Your task to perform on an android device: Search for the best rated 2021 Samsung Galaxy S21 Ultra on AliExpress Image 0: 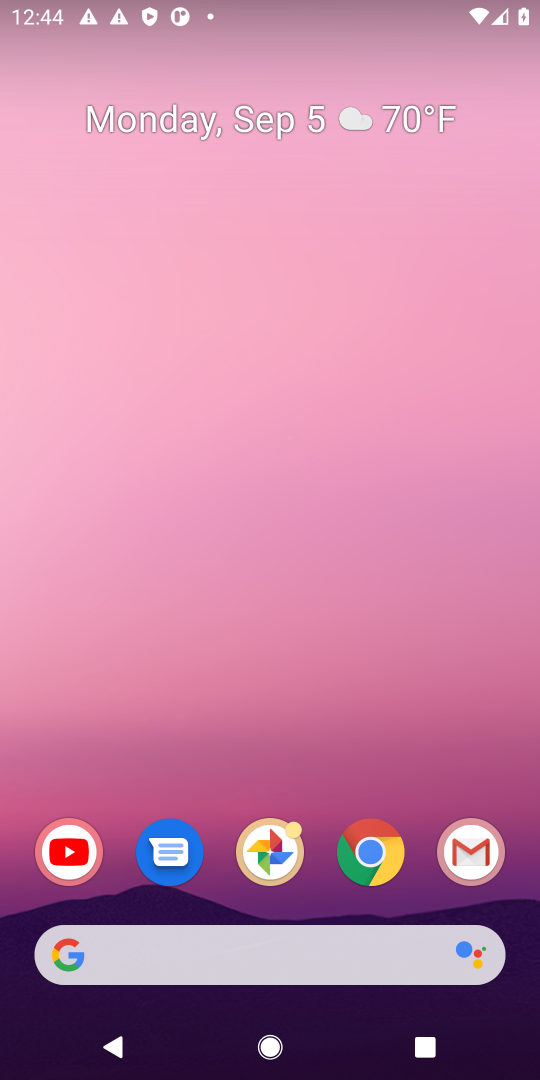
Step 0: click (371, 849)
Your task to perform on an android device: Search for the best rated 2021 Samsung Galaxy S21 Ultra on AliExpress Image 1: 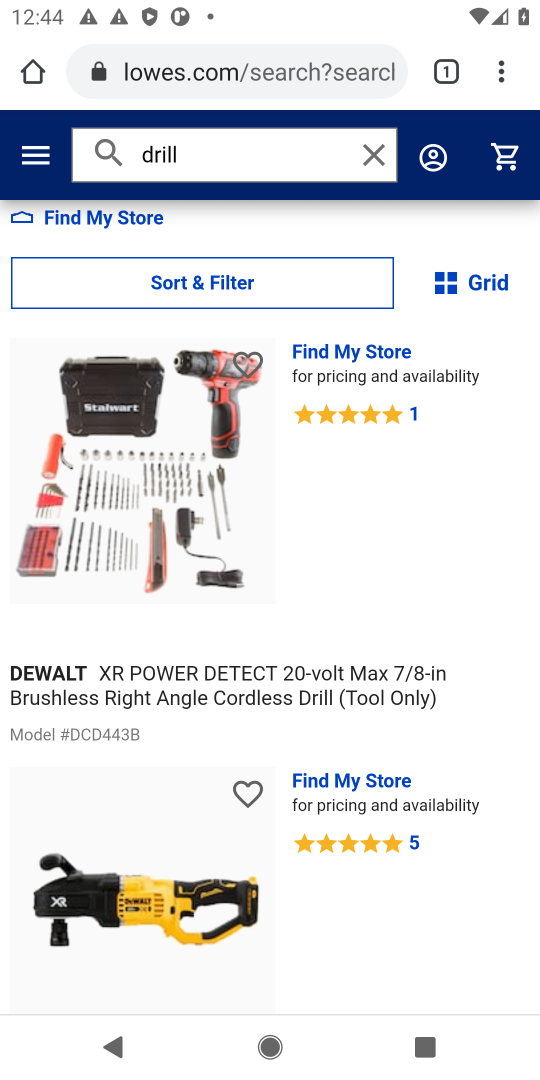
Step 1: click (291, 48)
Your task to perform on an android device: Search for the best rated 2021 Samsung Galaxy S21 Ultra on AliExpress Image 2: 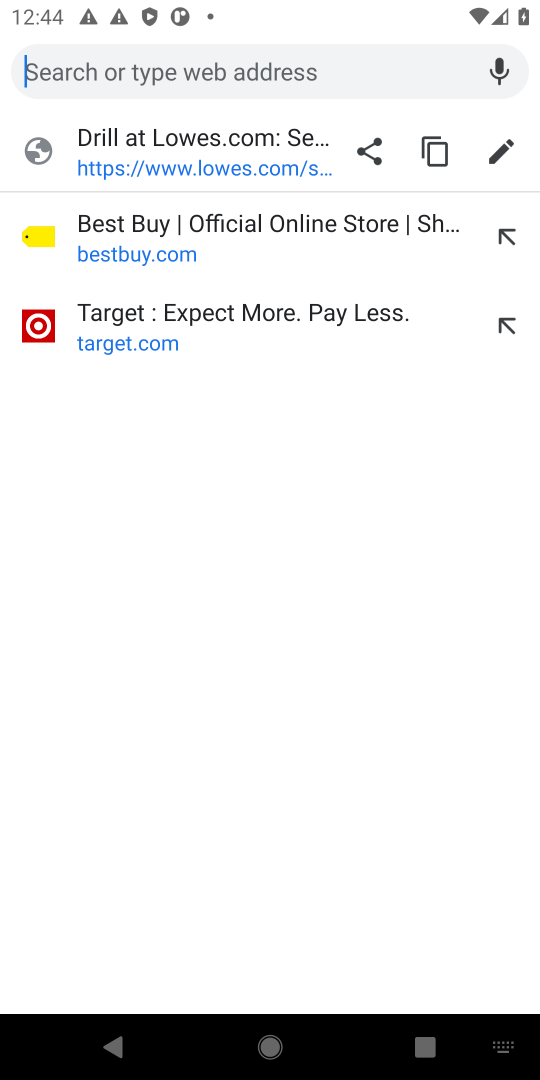
Step 2: type "Aliexpress"
Your task to perform on an android device: Search for the best rated 2021 Samsung Galaxy S21 Ultra on AliExpress Image 3: 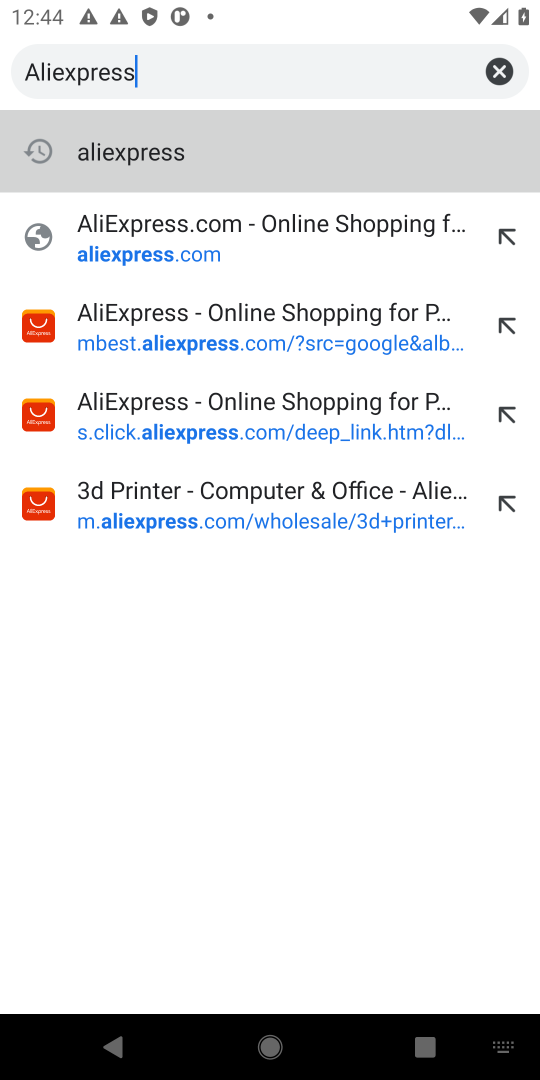
Step 3: click (120, 219)
Your task to perform on an android device: Search for the best rated 2021 Samsung Galaxy S21 Ultra on AliExpress Image 4: 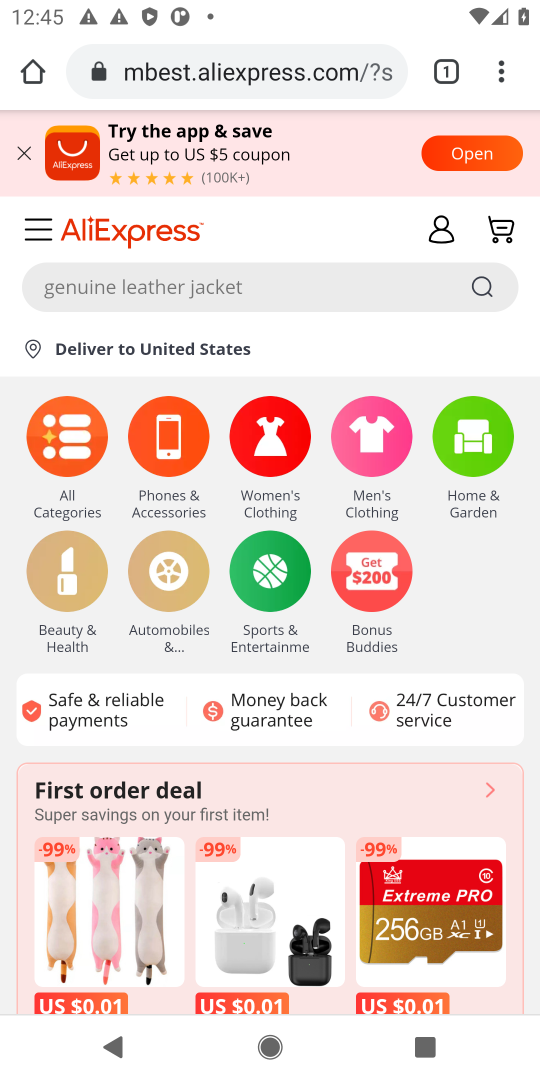
Step 4: click (138, 289)
Your task to perform on an android device: Search for the best rated 2021 Samsung Galaxy S21 Ultra on AliExpress Image 5: 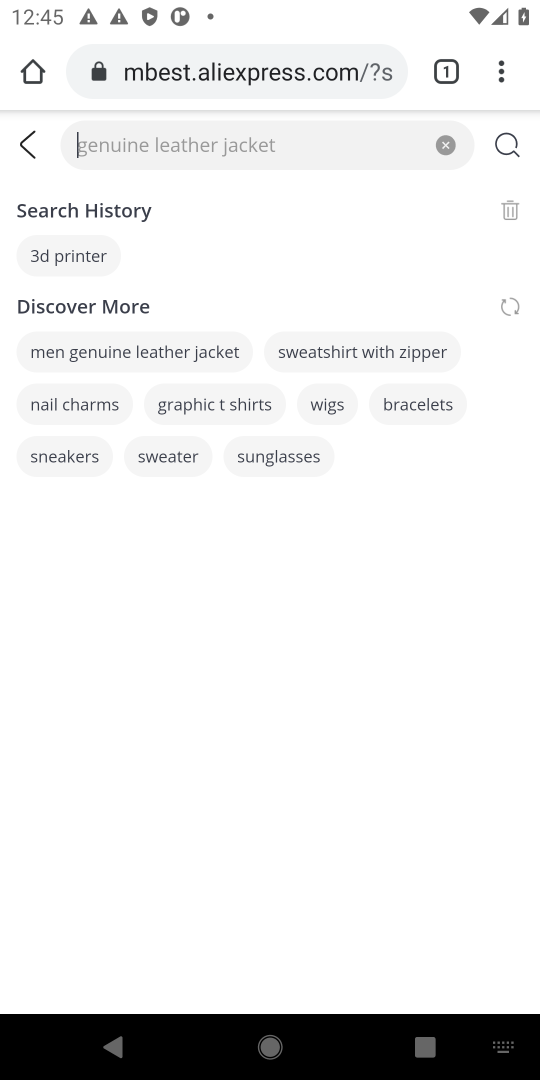
Step 5: click (527, 1075)
Your task to perform on an android device: Search for the best rated 2021 Samsung Galaxy S21 Ultra on AliExpress Image 6: 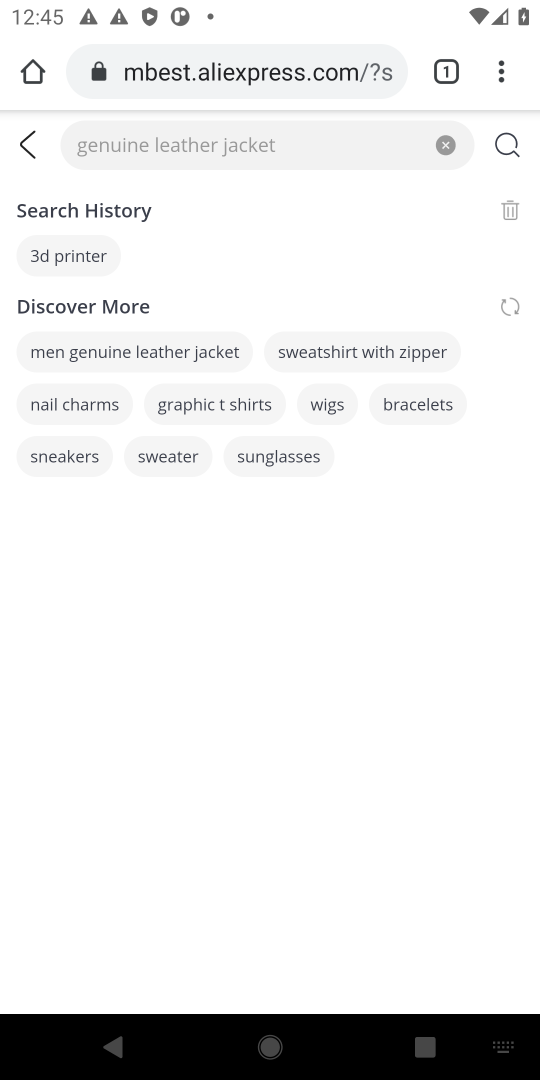
Step 6: type " 2021 Samsung Galaxy S21 Ultra"
Your task to perform on an android device: Search for the best rated 2021 Samsung Galaxy S21 Ultra on AliExpress Image 7: 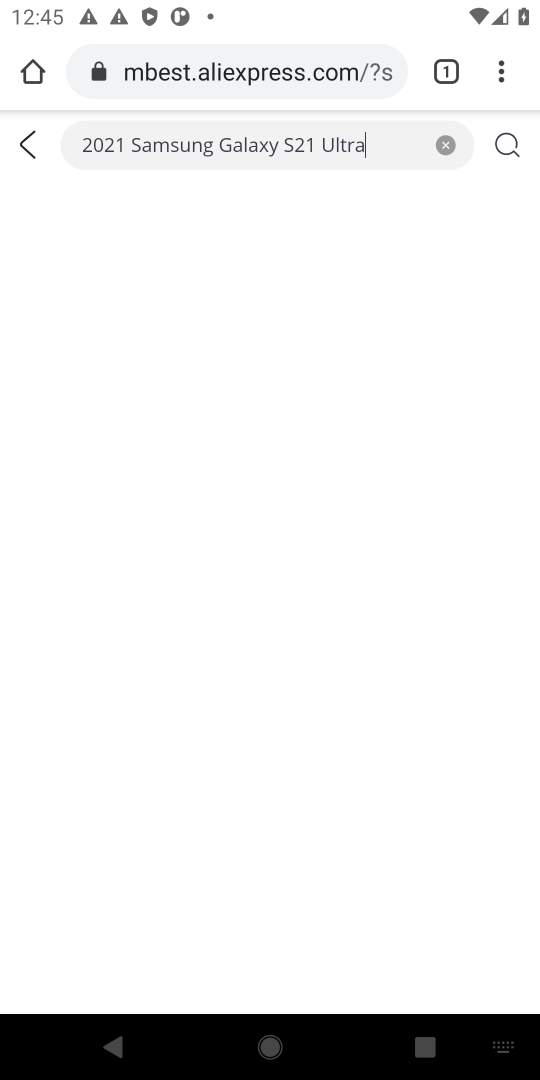
Step 7: drag from (525, 1079) to (530, 390)
Your task to perform on an android device: Search for the best rated 2021 Samsung Galaxy S21 Ultra on AliExpress Image 8: 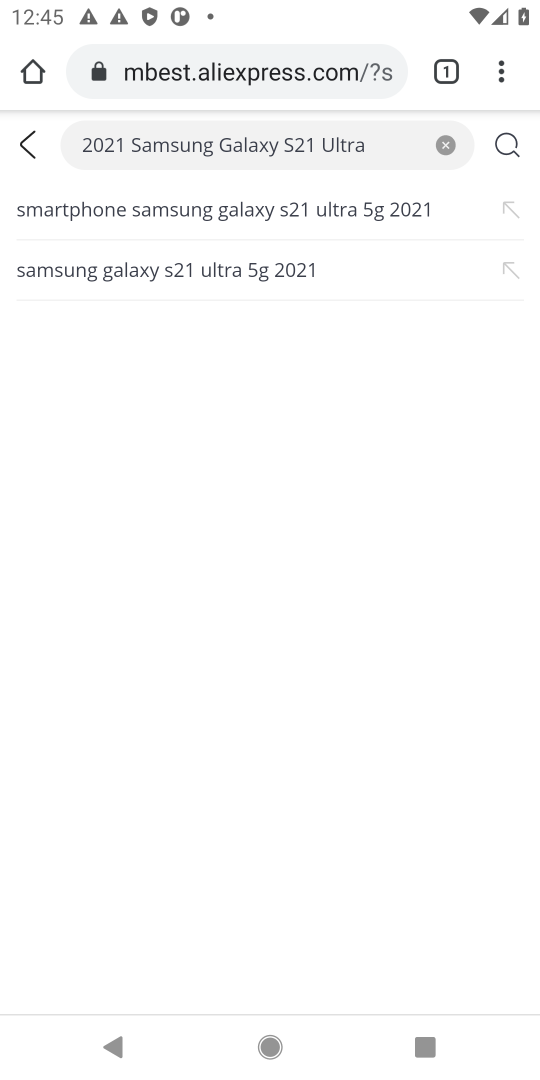
Step 8: click (504, 144)
Your task to perform on an android device: Search for the best rated 2021 Samsung Galaxy S21 Ultra on AliExpress Image 9: 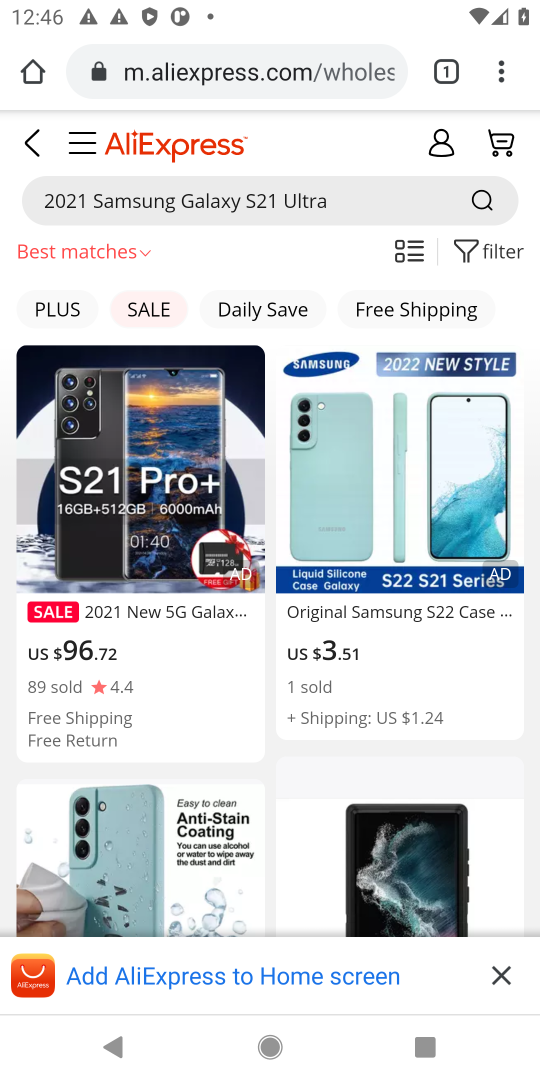
Step 9: click (485, 250)
Your task to perform on an android device: Search for the best rated 2021 Samsung Galaxy S21 Ultra on AliExpress Image 10: 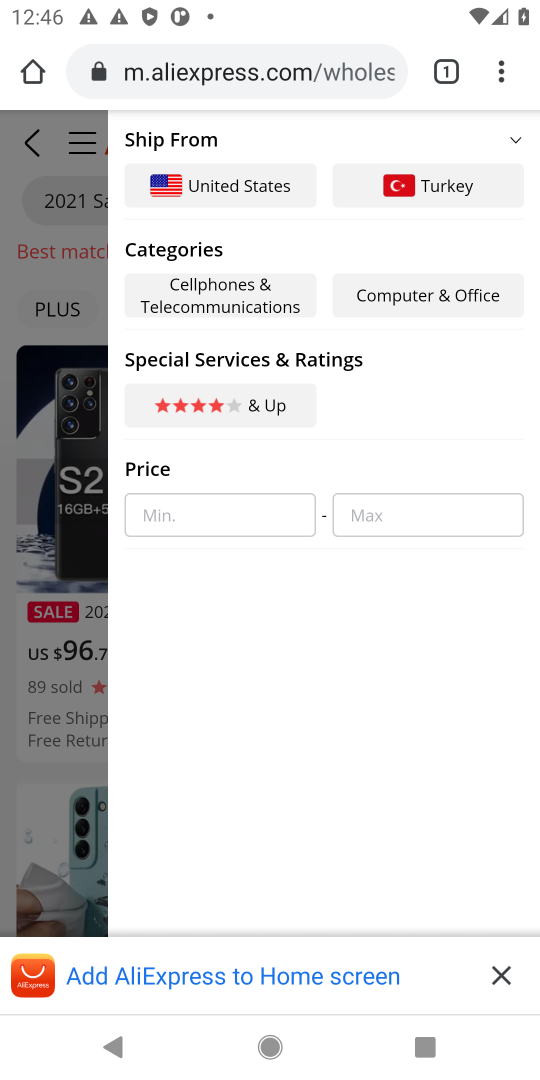
Step 10: click (206, 400)
Your task to perform on an android device: Search for the best rated 2021 Samsung Galaxy S21 Ultra on AliExpress Image 11: 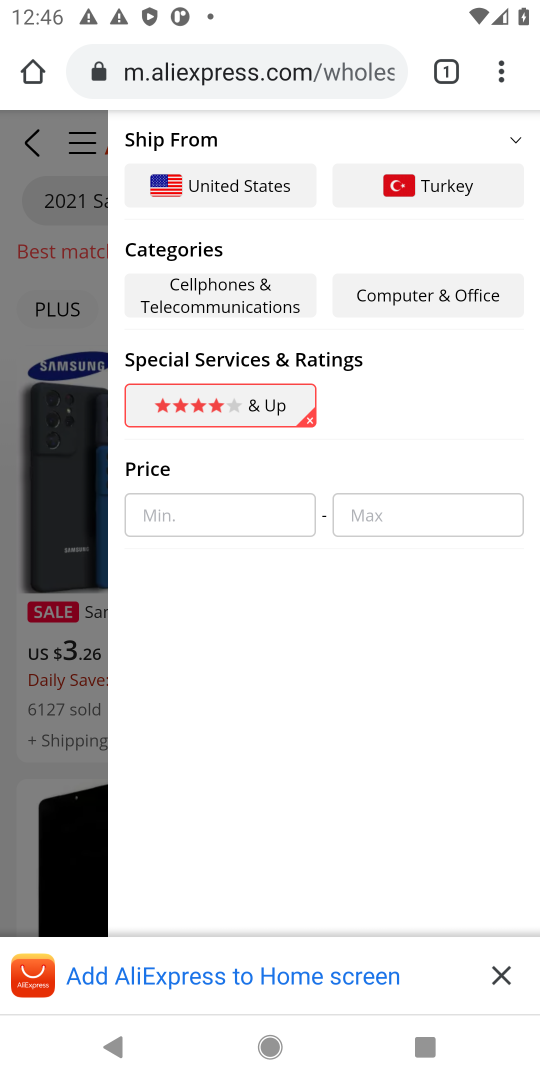
Step 11: click (499, 971)
Your task to perform on an android device: Search for the best rated 2021 Samsung Galaxy S21 Ultra on AliExpress Image 12: 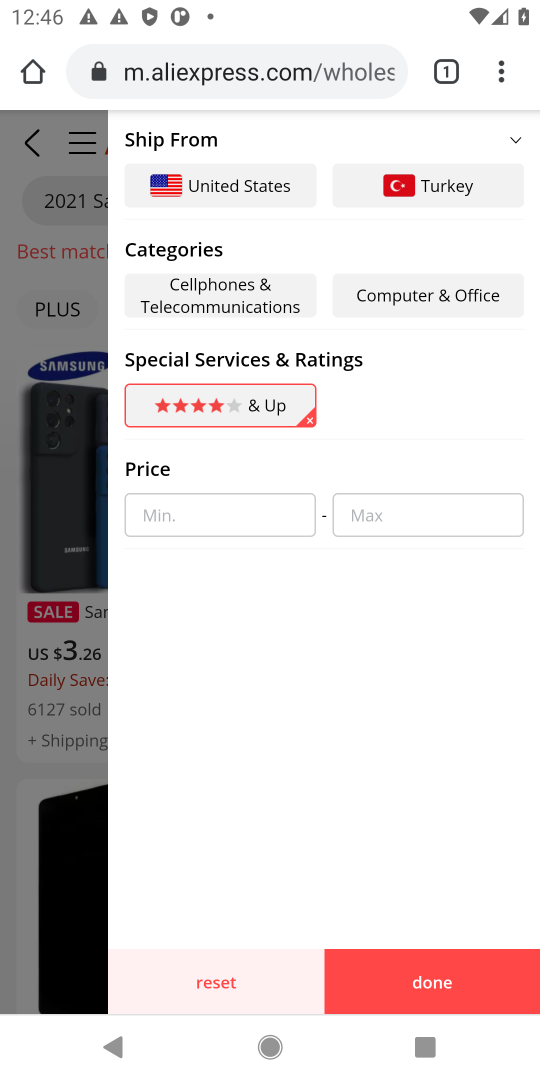
Step 12: click (440, 976)
Your task to perform on an android device: Search for the best rated 2021 Samsung Galaxy S21 Ultra on AliExpress Image 13: 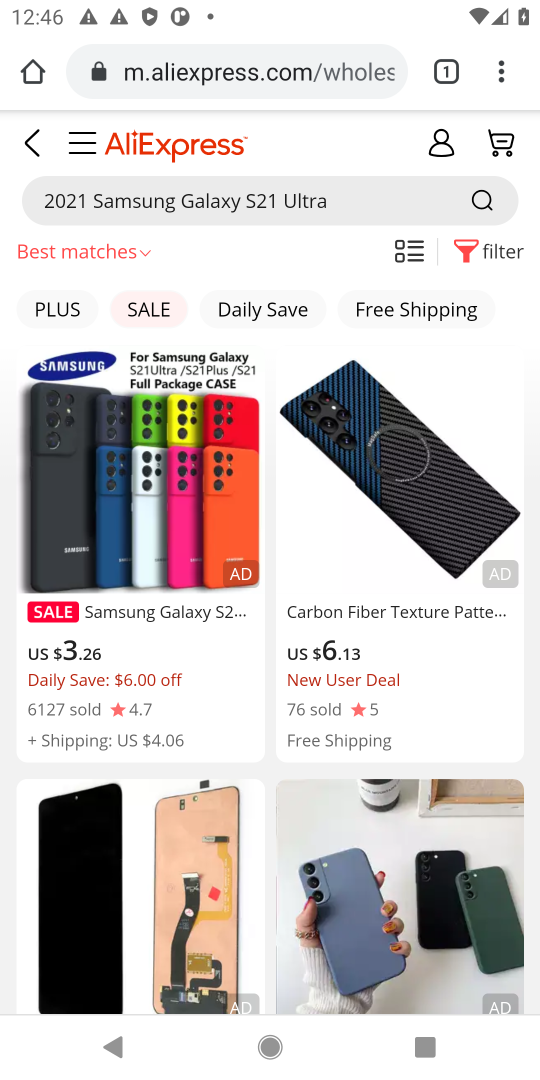
Step 13: drag from (229, 427) to (238, 280)
Your task to perform on an android device: Search for the best rated 2021 Samsung Galaxy S21 Ultra on AliExpress Image 14: 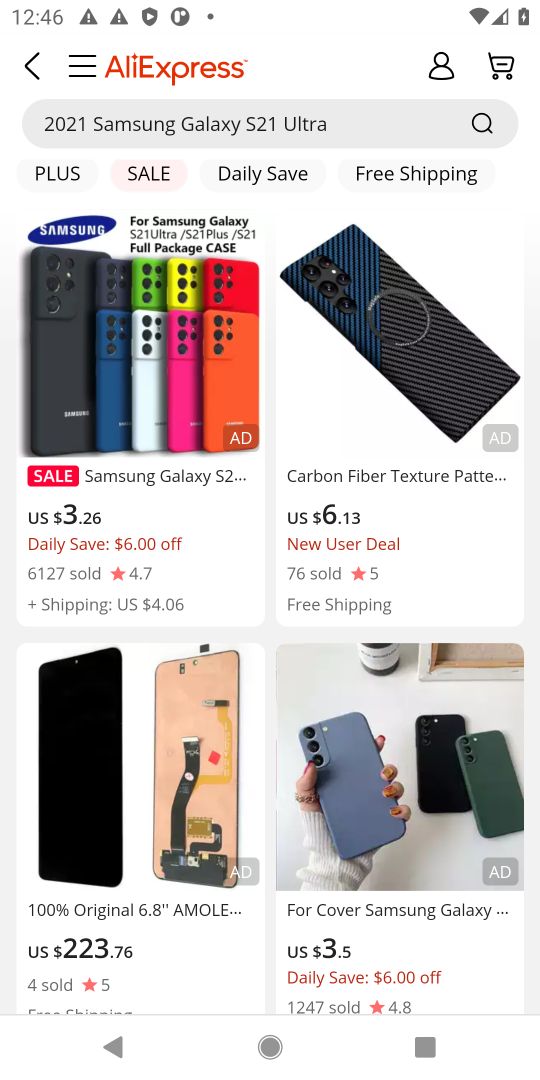
Step 14: click (264, 576)
Your task to perform on an android device: Search for the best rated 2021 Samsung Galaxy S21 Ultra on AliExpress Image 15: 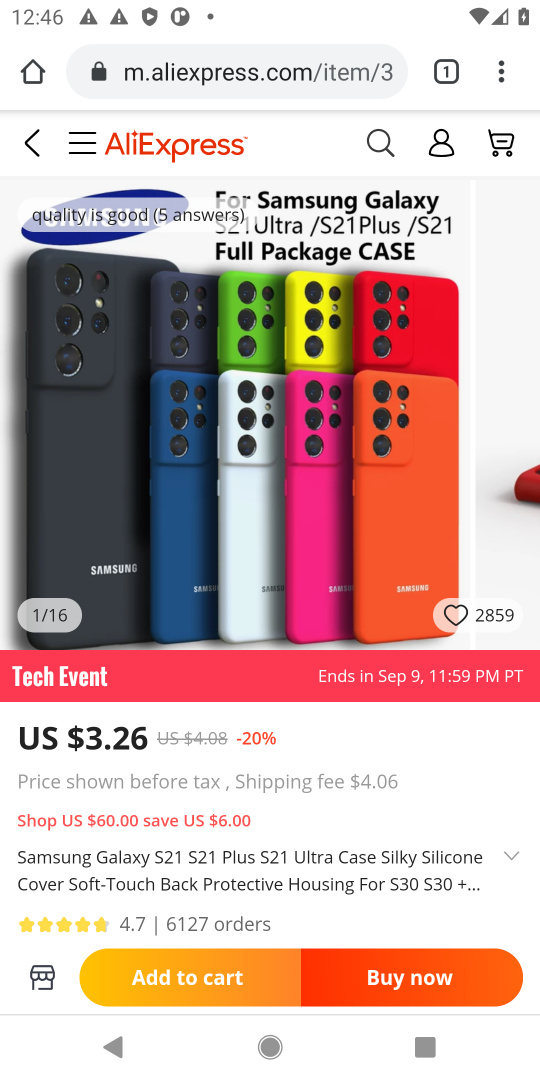
Step 15: task complete